Your task to perform on an android device: Open calendar and show me the fourth week of next month Image 0: 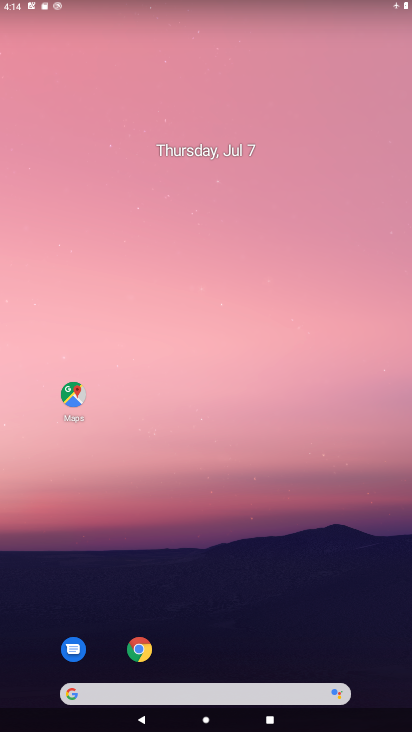
Step 0: drag from (362, 528) to (367, 222)
Your task to perform on an android device: Open calendar and show me the fourth week of next month Image 1: 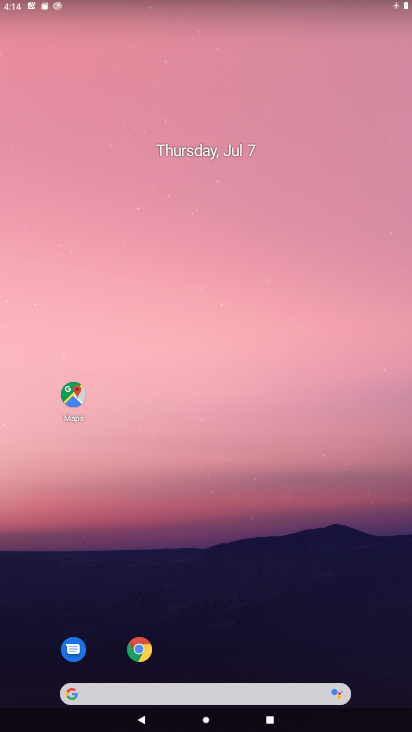
Step 1: drag from (364, 669) to (325, 159)
Your task to perform on an android device: Open calendar and show me the fourth week of next month Image 2: 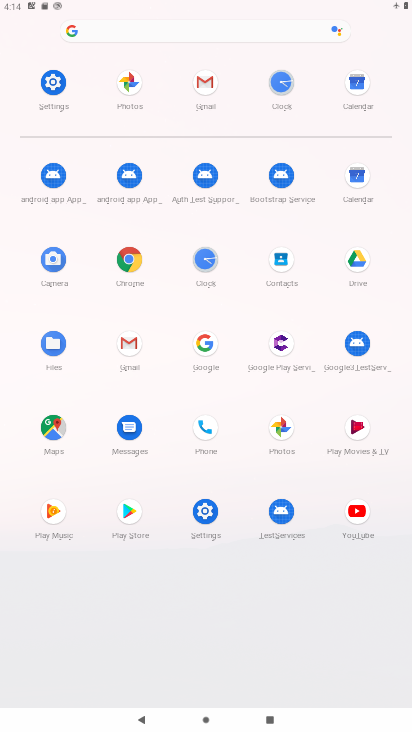
Step 2: click (358, 175)
Your task to perform on an android device: Open calendar and show me the fourth week of next month Image 3: 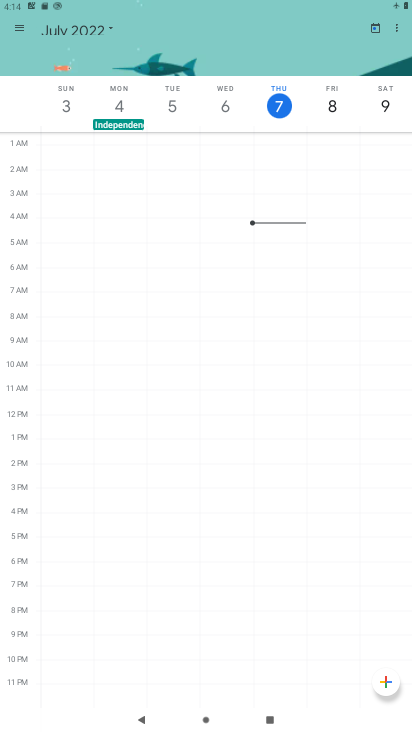
Step 3: click (103, 28)
Your task to perform on an android device: Open calendar and show me the fourth week of next month Image 4: 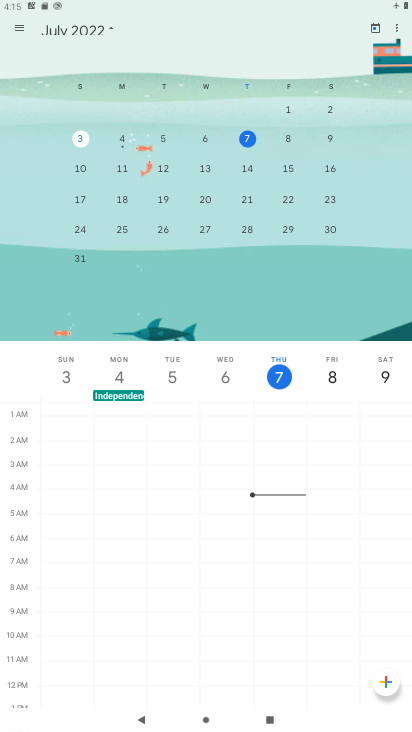
Step 4: drag from (338, 188) to (85, 234)
Your task to perform on an android device: Open calendar and show me the fourth week of next month Image 5: 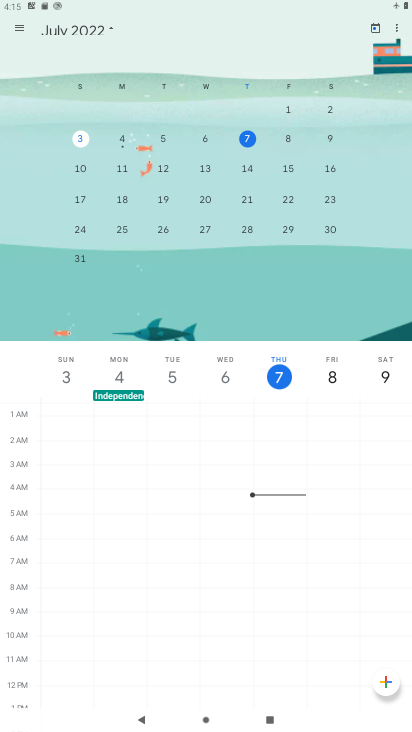
Step 5: drag from (360, 190) to (68, 201)
Your task to perform on an android device: Open calendar and show me the fourth week of next month Image 6: 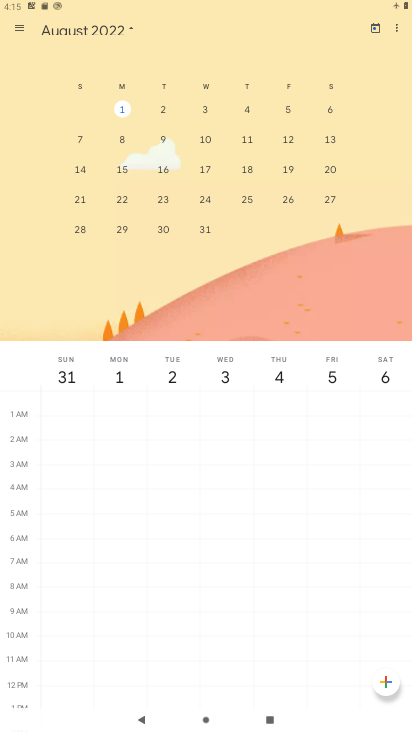
Step 6: click (80, 231)
Your task to perform on an android device: Open calendar and show me the fourth week of next month Image 7: 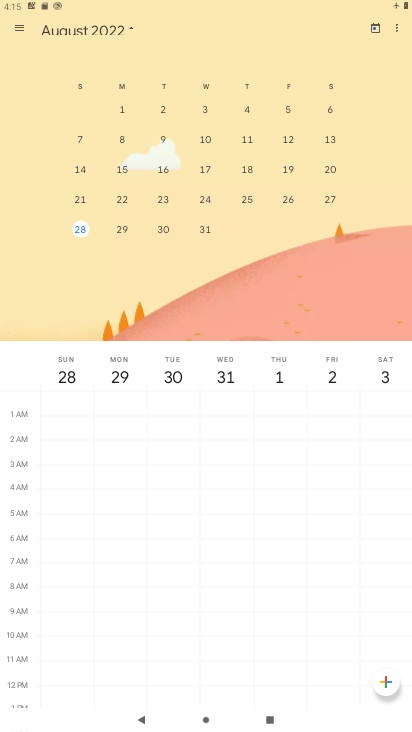
Step 7: task complete